Your task to perform on an android device: Open CNN.com Image 0: 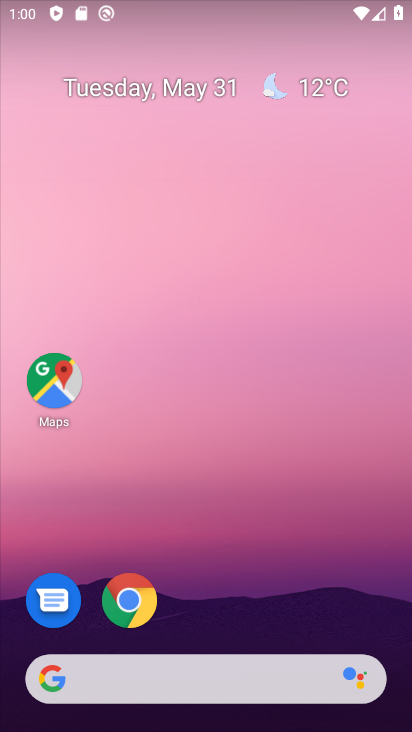
Step 0: click (134, 601)
Your task to perform on an android device: Open CNN.com Image 1: 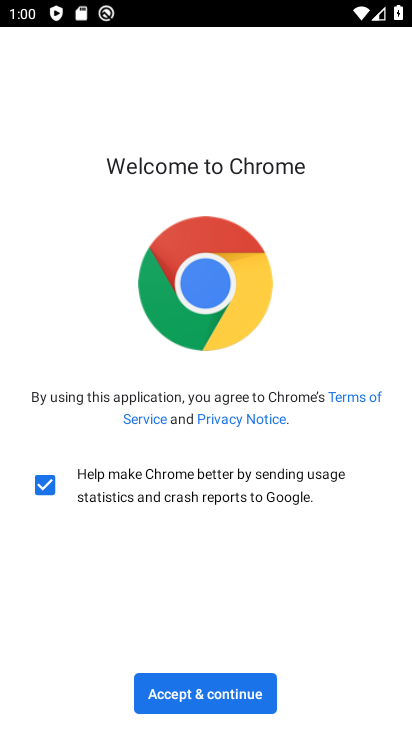
Step 1: click (261, 689)
Your task to perform on an android device: Open CNN.com Image 2: 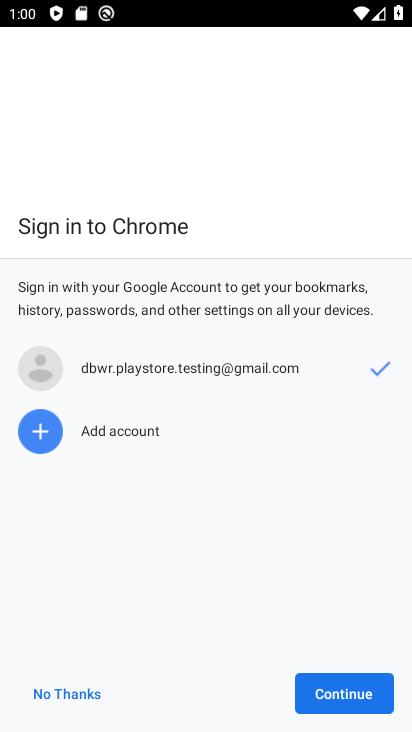
Step 2: click (334, 684)
Your task to perform on an android device: Open CNN.com Image 3: 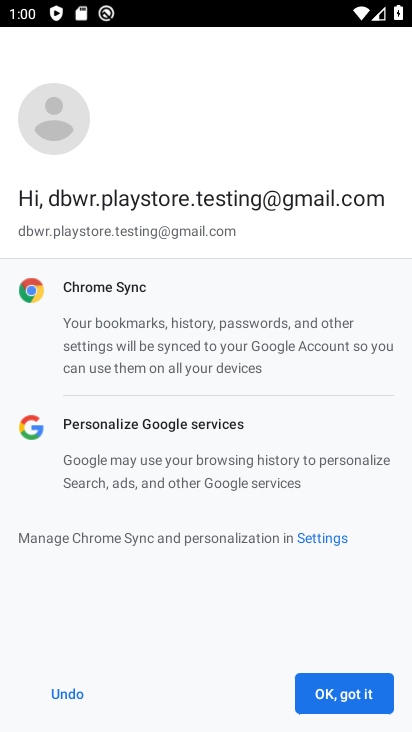
Step 3: click (348, 689)
Your task to perform on an android device: Open CNN.com Image 4: 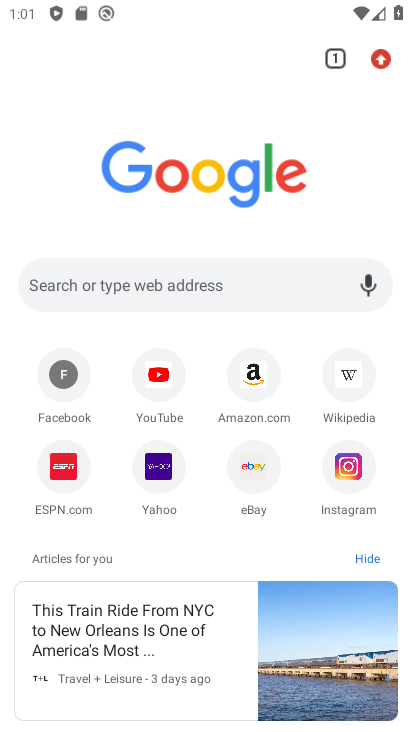
Step 4: click (184, 277)
Your task to perform on an android device: Open CNN.com Image 5: 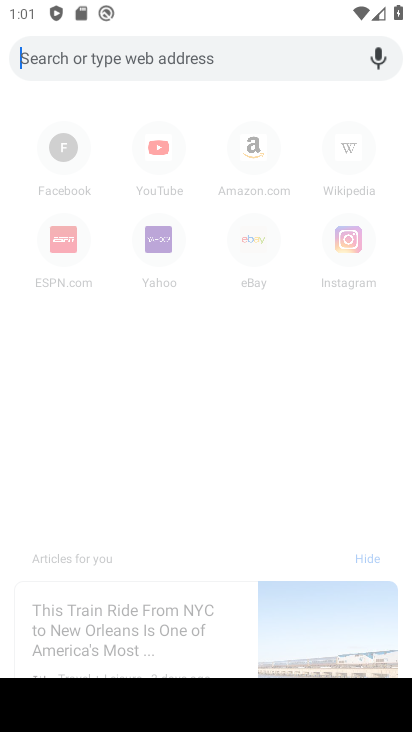
Step 5: type "CNN.com"
Your task to perform on an android device: Open CNN.com Image 6: 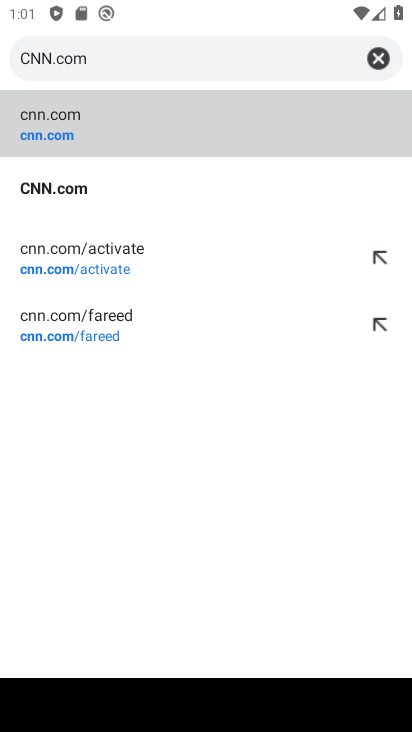
Step 6: click (216, 119)
Your task to perform on an android device: Open CNN.com Image 7: 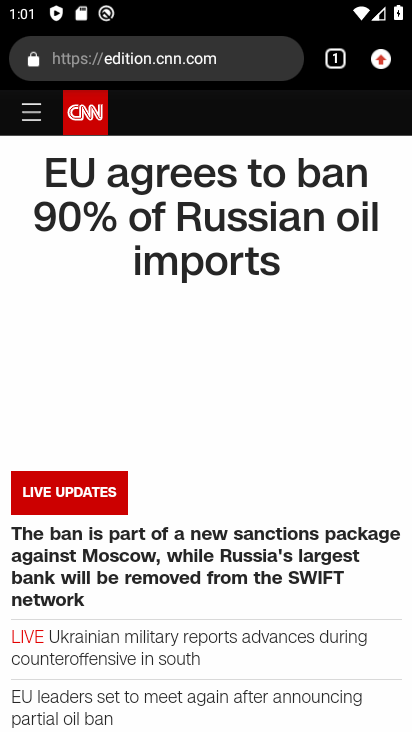
Step 7: task complete